Your task to perform on an android device: open app "DoorDash - Food Delivery" (install if not already installed) and enter user name: "Richard@outlook.com" and password: "informally" Image 0: 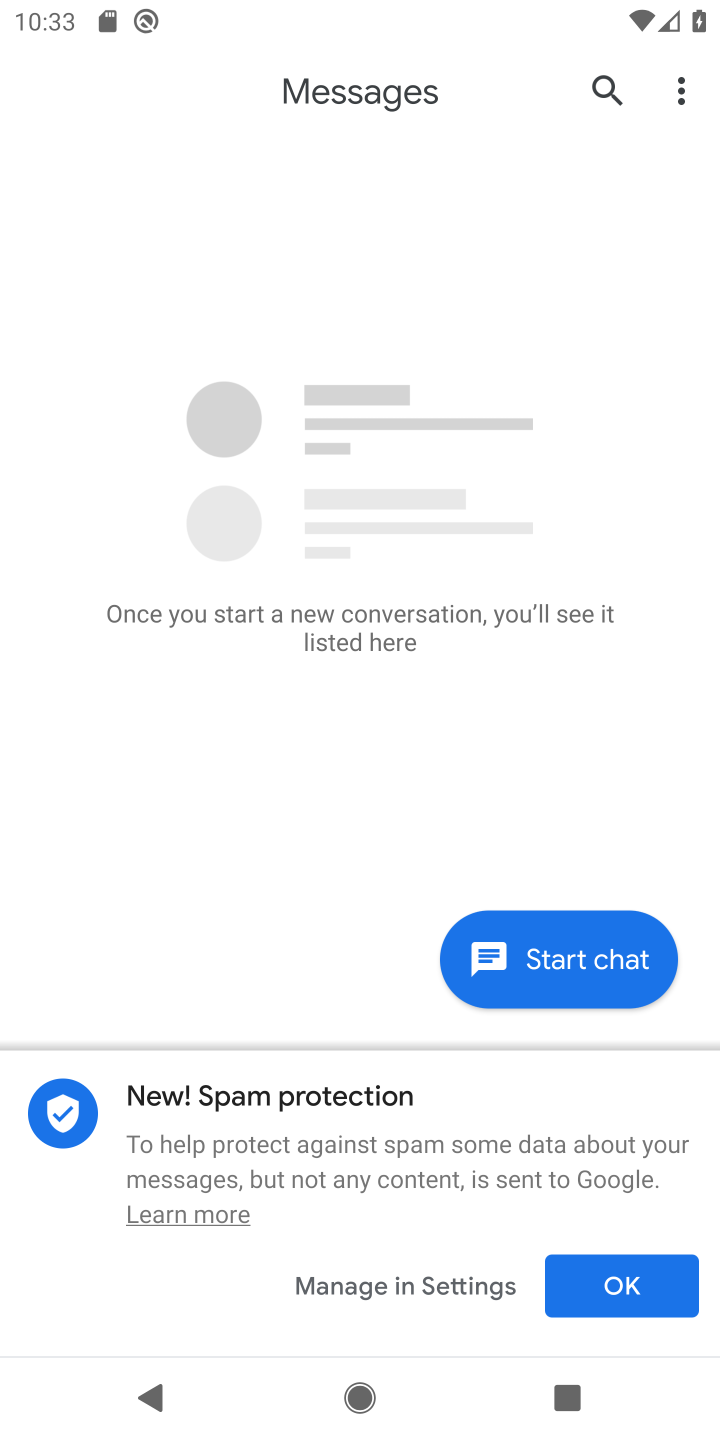
Step 0: press home button
Your task to perform on an android device: open app "DoorDash - Food Delivery" (install if not already installed) and enter user name: "Richard@outlook.com" and password: "informally" Image 1: 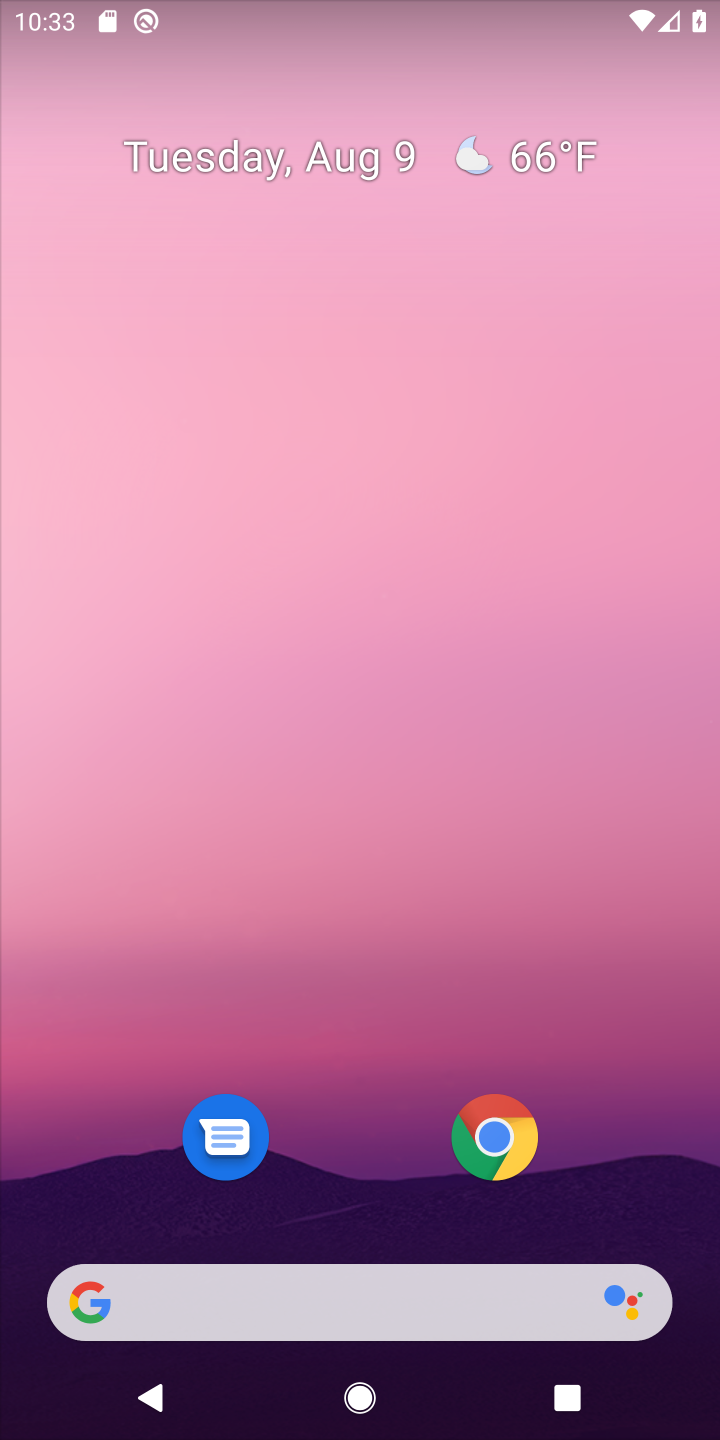
Step 1: drag from (380, 1141) to (342, 398)
Your task to perform on an android device: open app "DoorDash - Food Delivery" (install if not already installed) and enter user name: "Richard@outlook.com" and password: "informally" Image 2: 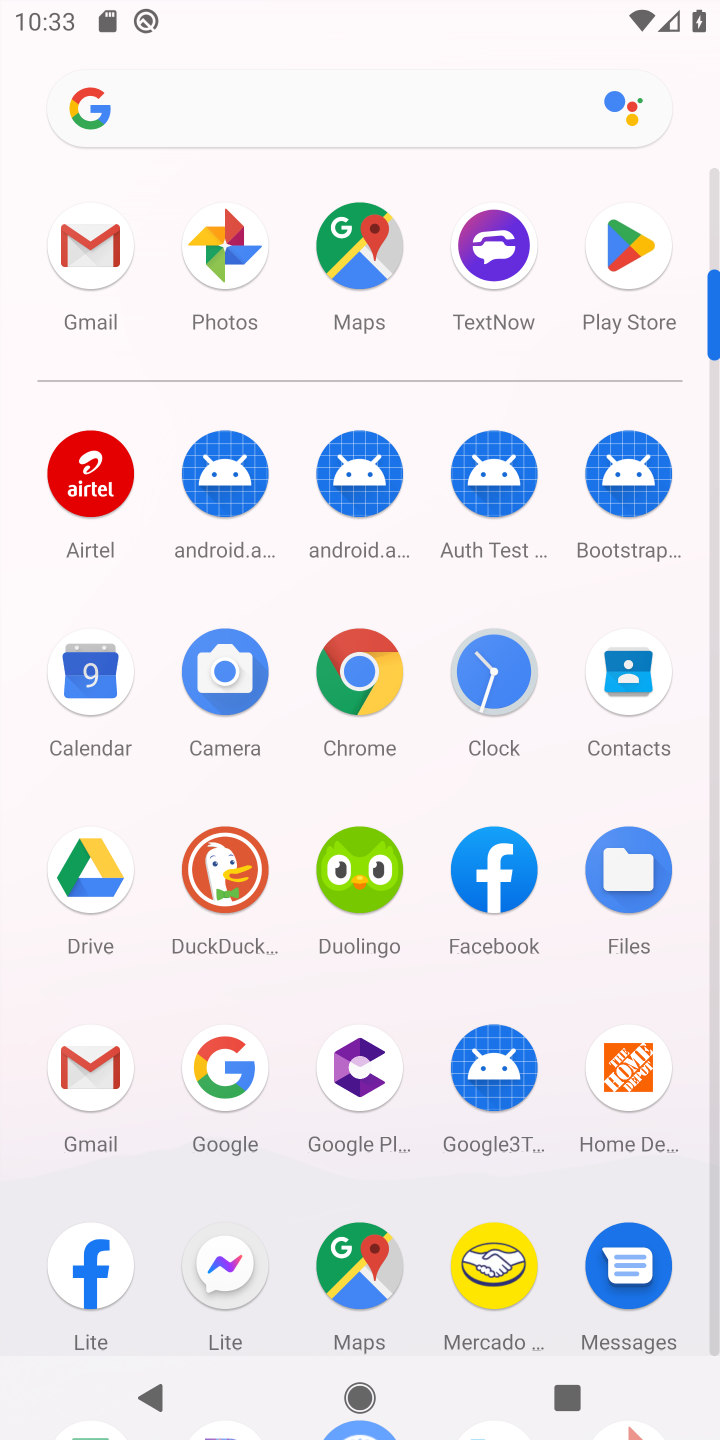
Step 2: click (610, 261)
Your task to perform on an android device: open app "DoorDash - Food Delivery" (install if not already installed) and enter user name: "Richard@outlook.com" and password: "informally" Image 3: 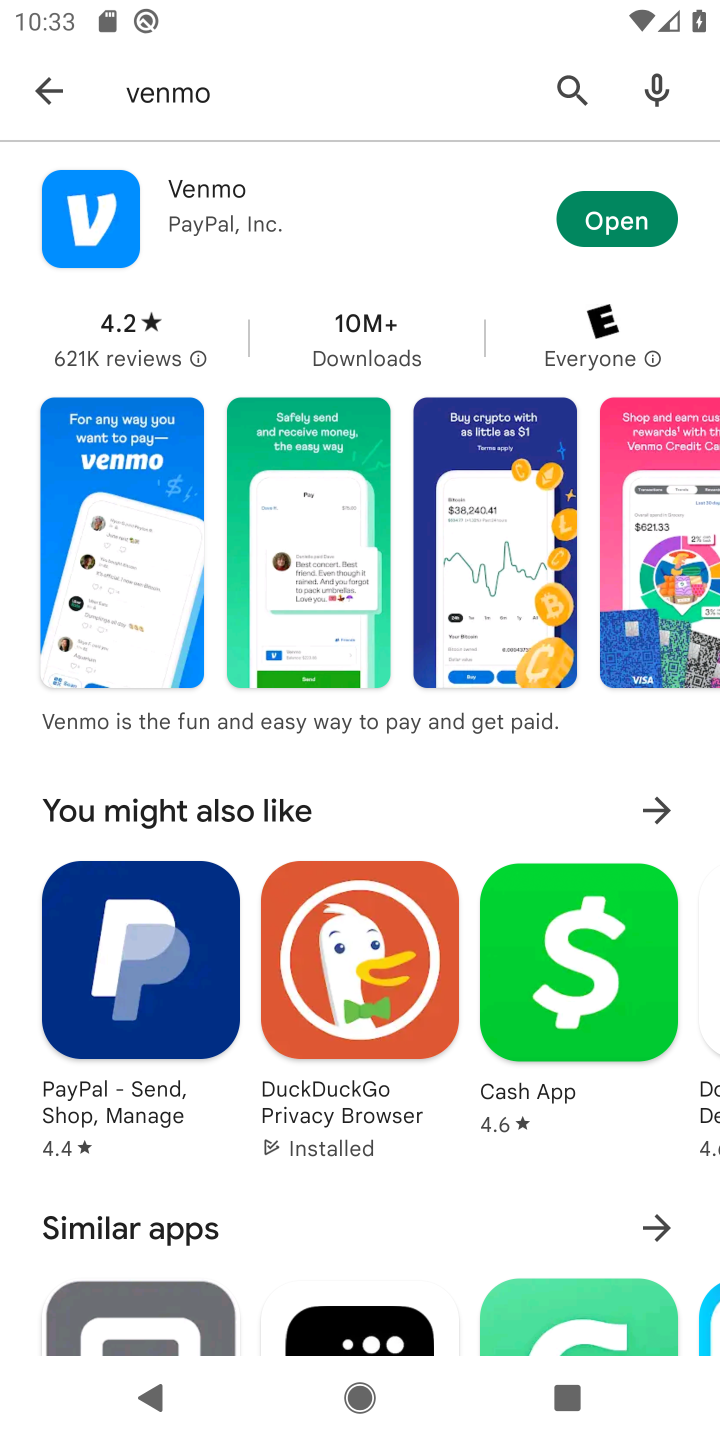
Step 3: click (574, 61)
Your task to perform on an android device: open app "DoorDash - Food Delivery" (install if not already installed) and enter user name: "Richard@outlook.com" and password: "informally" Image 4: 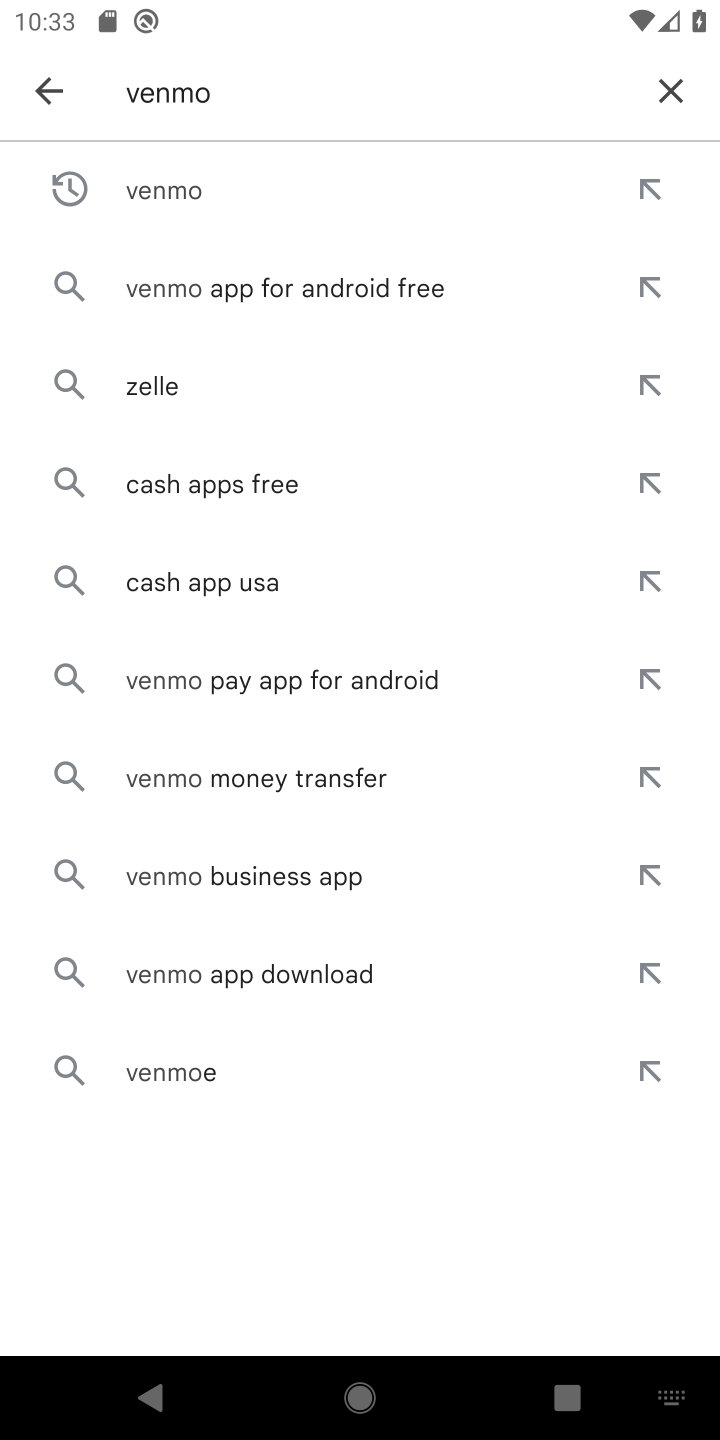
Step 4: click (682, 84)
Your task to perform on an android device: open app "DoorDash - Food Delivery" (install if not already installed) and enter user name: "Richard@outlook.com" and password: "informally" Image 5: 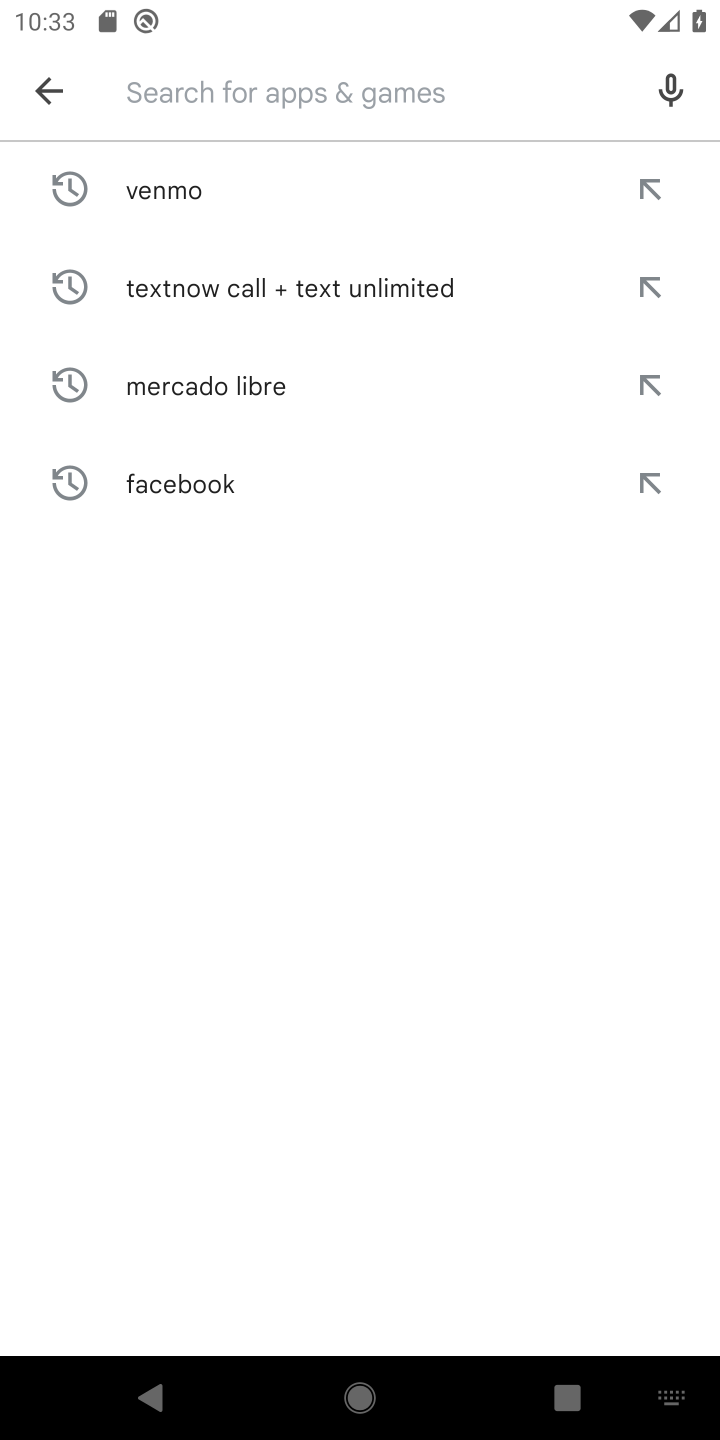
Step 5: type "DoorDash - Food Delivery"
Your task to perform on an android device: open app "DoorDash - Food Delivery" (install if not already installed) and enter user name: "Richard@outlook.com" and password: "informally" Image 6: 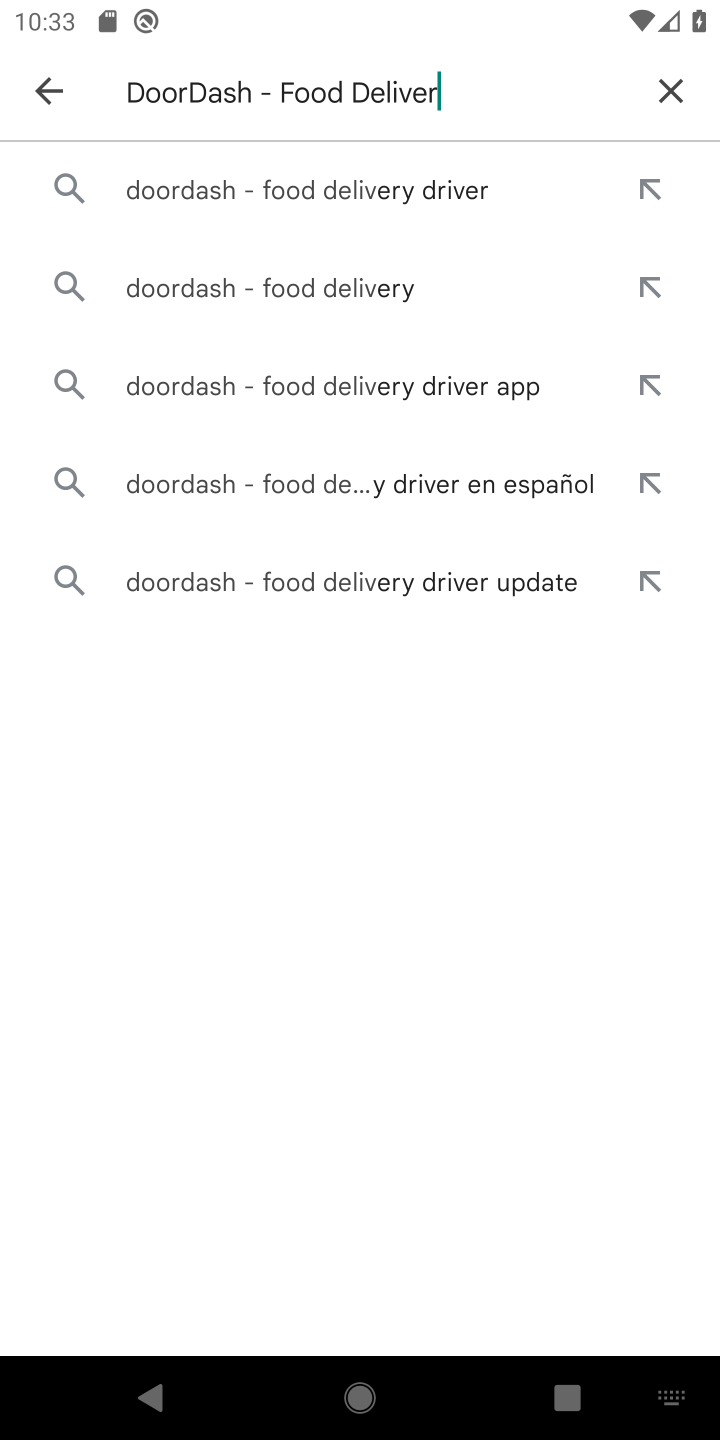
Step 6: type ""
Your task to perform on an android device: open app "DoorDash - Food Delivery" (install if not already installed) and enter user name: "Richard@outlook.com" and password: "informally" Image 7: 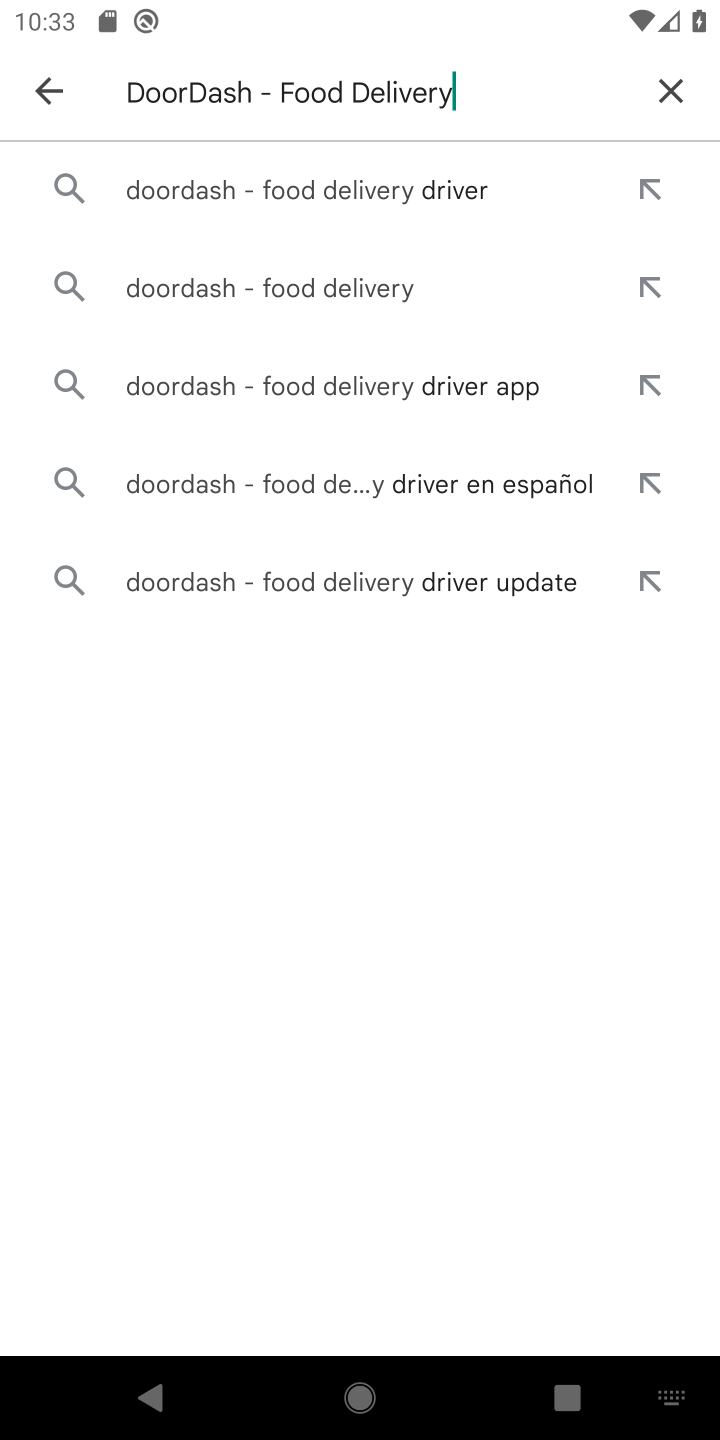
Step 7: click (431, 197)
Your task to perform on an android device: open app "DoorDash - Food Delivery" (install if not already installed) and enter user name: "Richard@outlook.com" and password: "informally" Image 8: 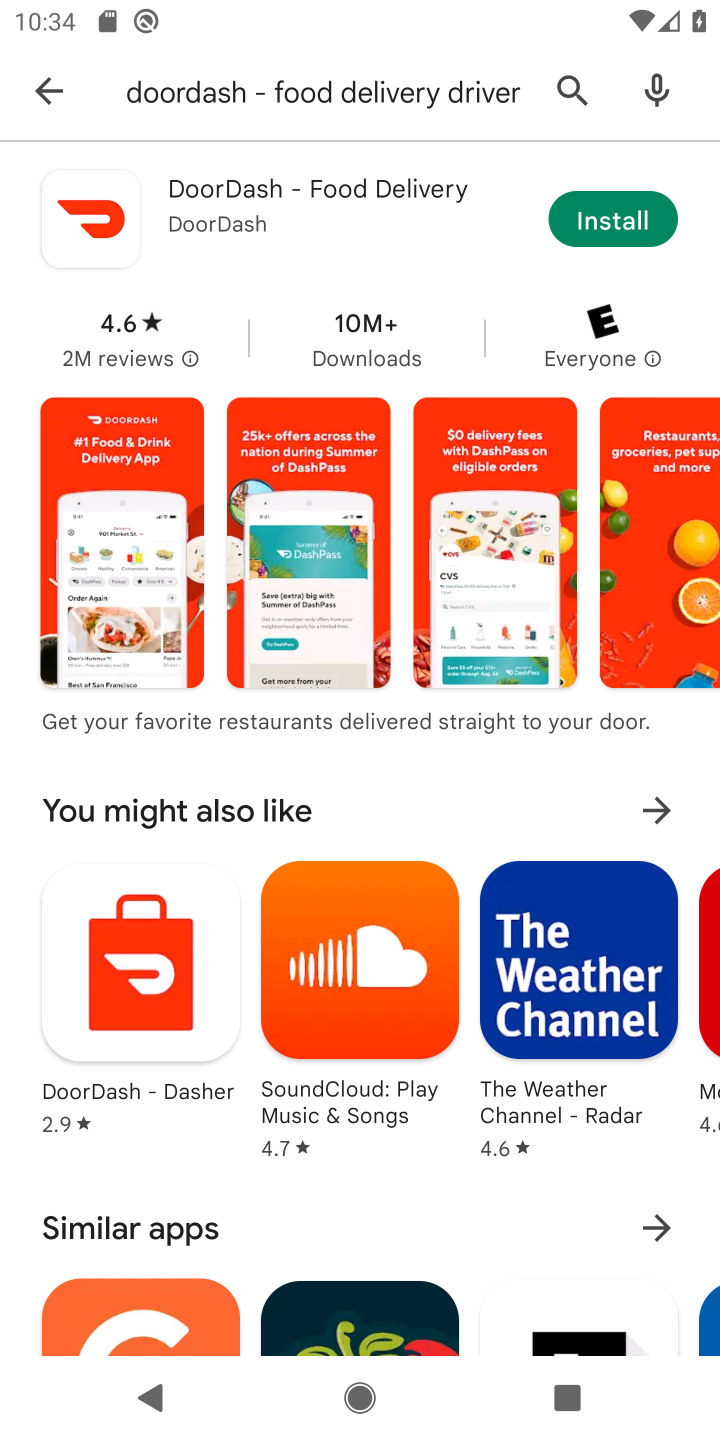
Step 8: click (648, 215)
Your task to perform on an android device: open app "DoorDash - Food Delivery" (install if not already installed) and enter user name: "Richard@outlook.com" and password: "informally" Image 9: 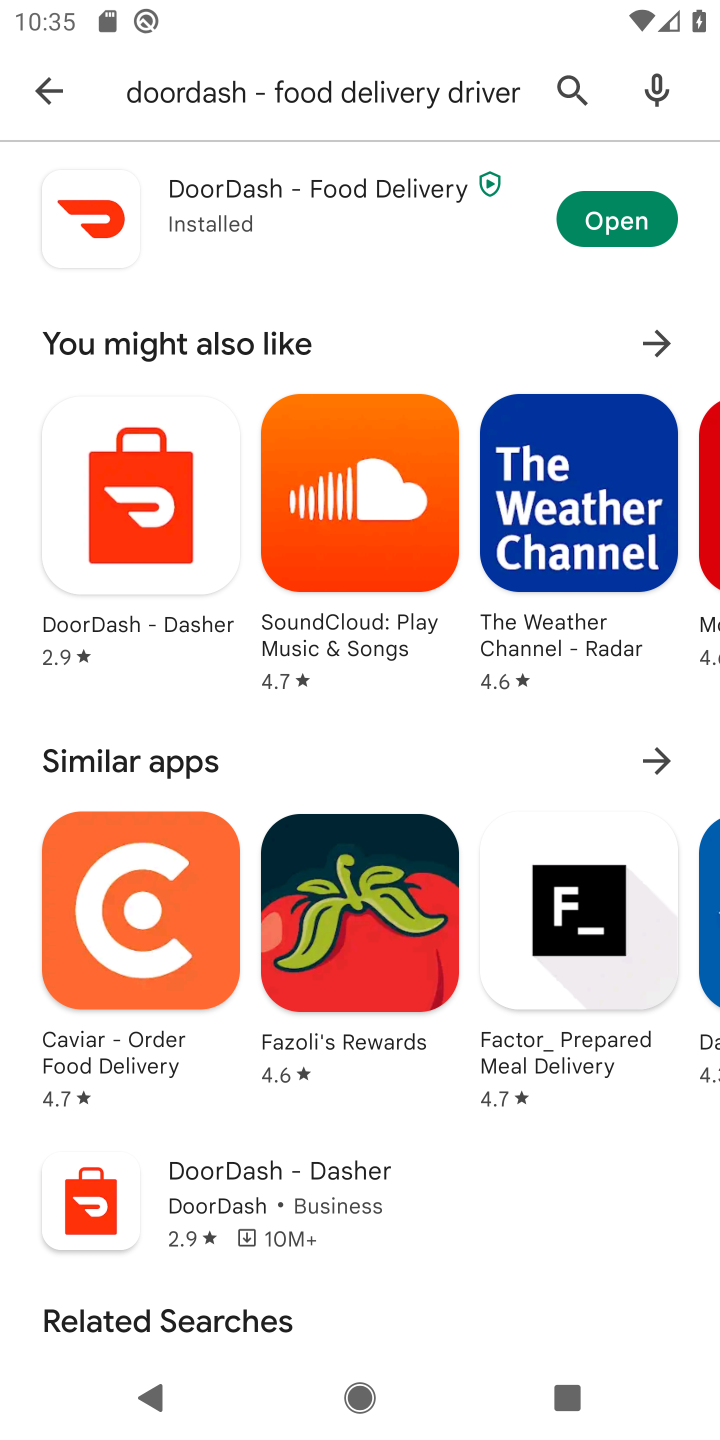
Step 9: click (646, 217)
Your task to perform on an android device: open app "DoorDash - Food Delivery" (install if not already installed) and enter user name: "Richard@outlook.com" and password: "informally" Image 10: 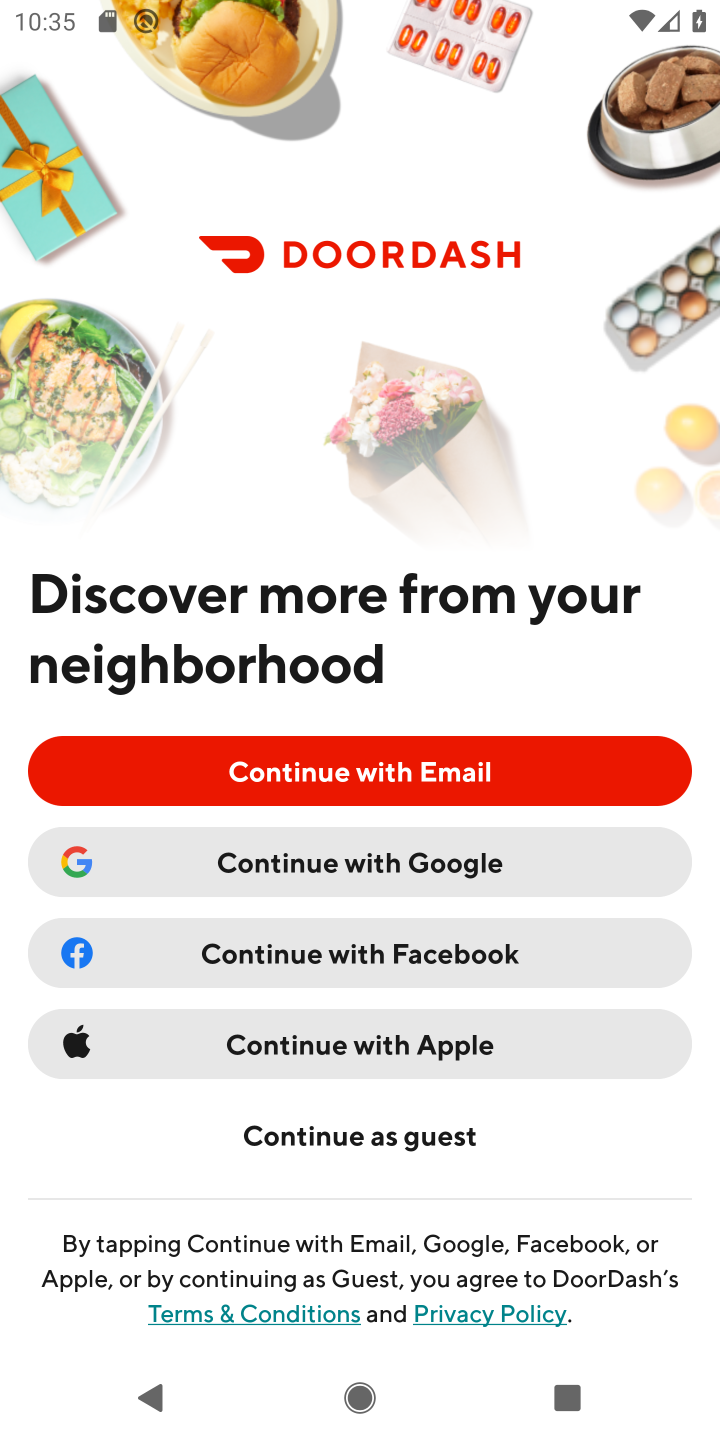
Step 10: task complete